Your task to perform on an android device: Show the shopping cart on newegg. Add "macbook pro 15 inch" to the cart on newegg, then select checkout. Image 0: 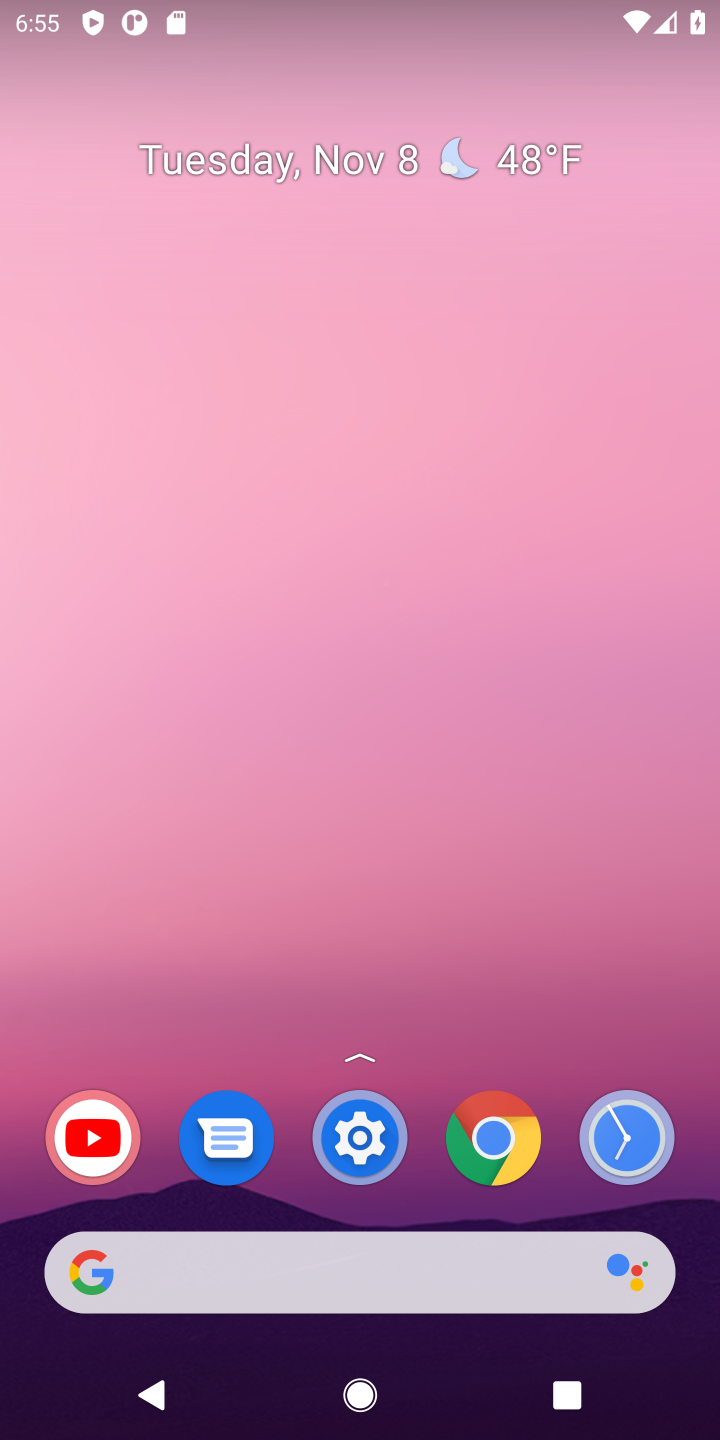
Step 0: click (491, 1135)
Your task to perform on an android device: Show the shopping cart on newegg. Add "macbook pro 15 inch" to the cart on newegg, then select checkout. Image 1: 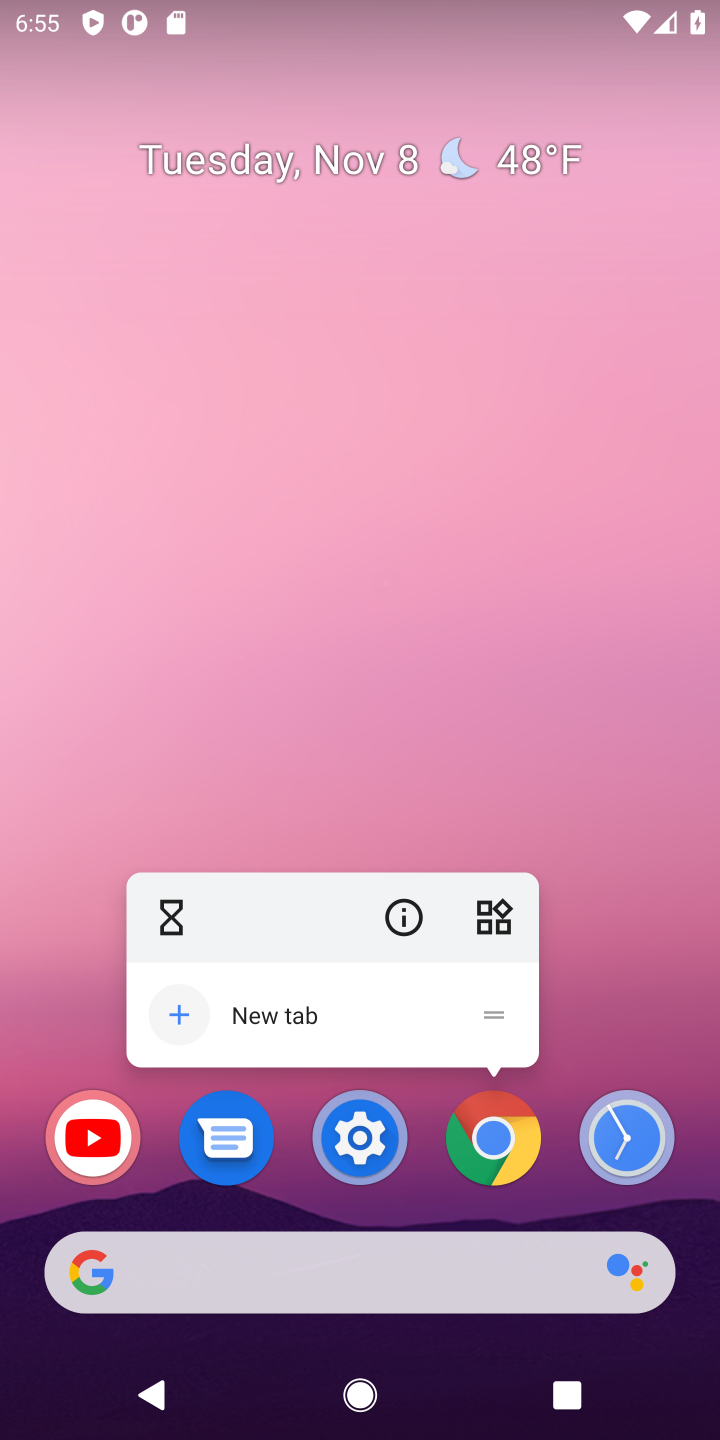
Step 1: click (489, 1135)
Your task to perform on an android device: Show the shopping cart on newegg. Add "macbook pro 15 inch" to the cart on newegg, then select checkout. Image 2: 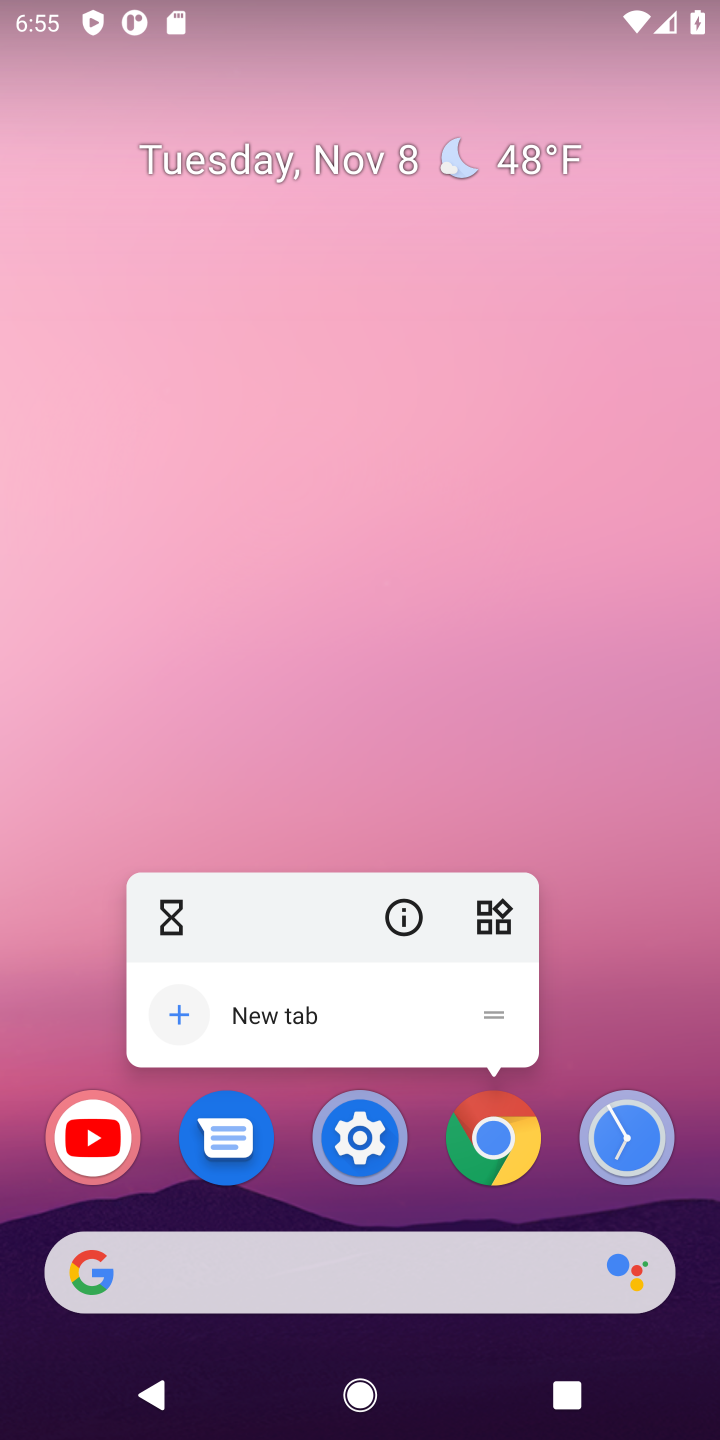
Step 2: click (489, 1142)
Your task to perform on an android device: Show the shopping cart on newegg. Add "macbook pro 15 inch" to the cart on newegg, then select checkout. Image 3: 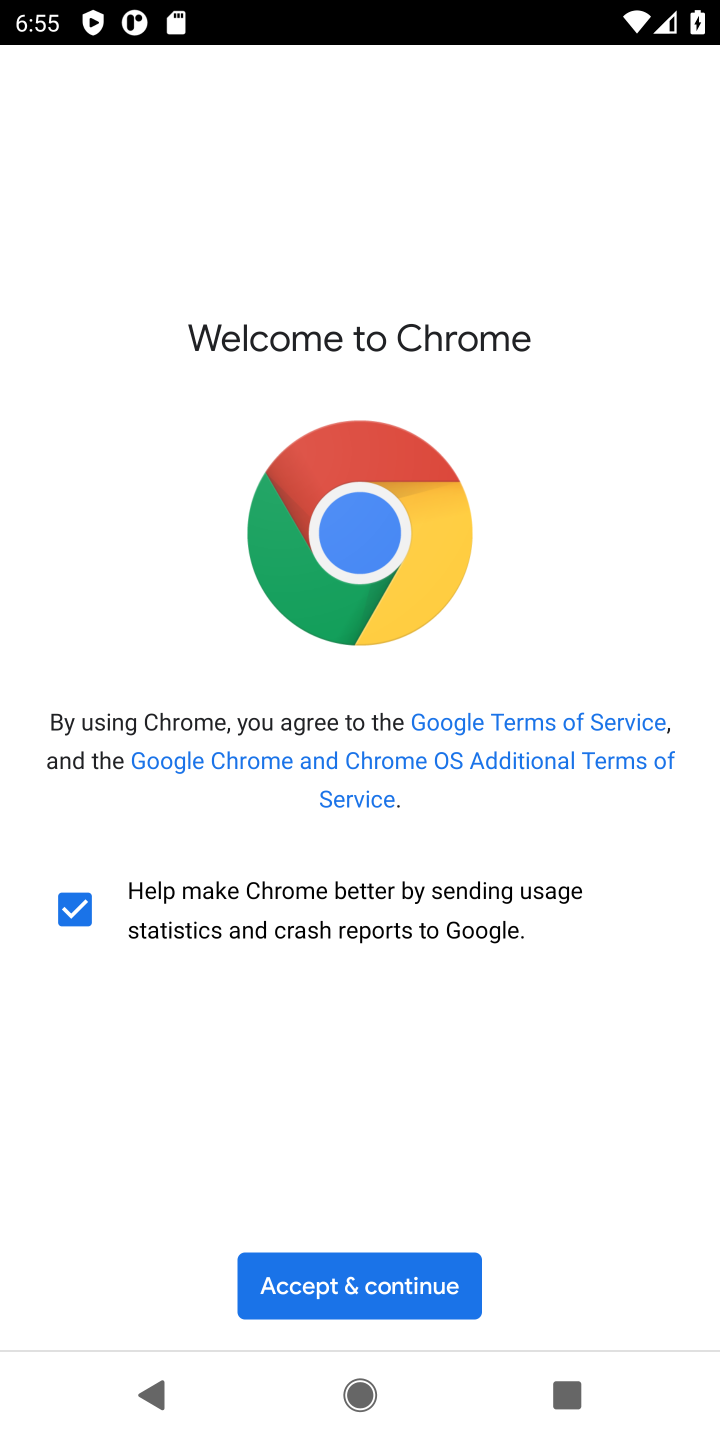
Step 3: click (360, 1299)
Your task to perform on an android device: Show the shopping cart on newegg. Add "macbook pro 15 inch" to the cart on newegg, then select checkout. Image 4: 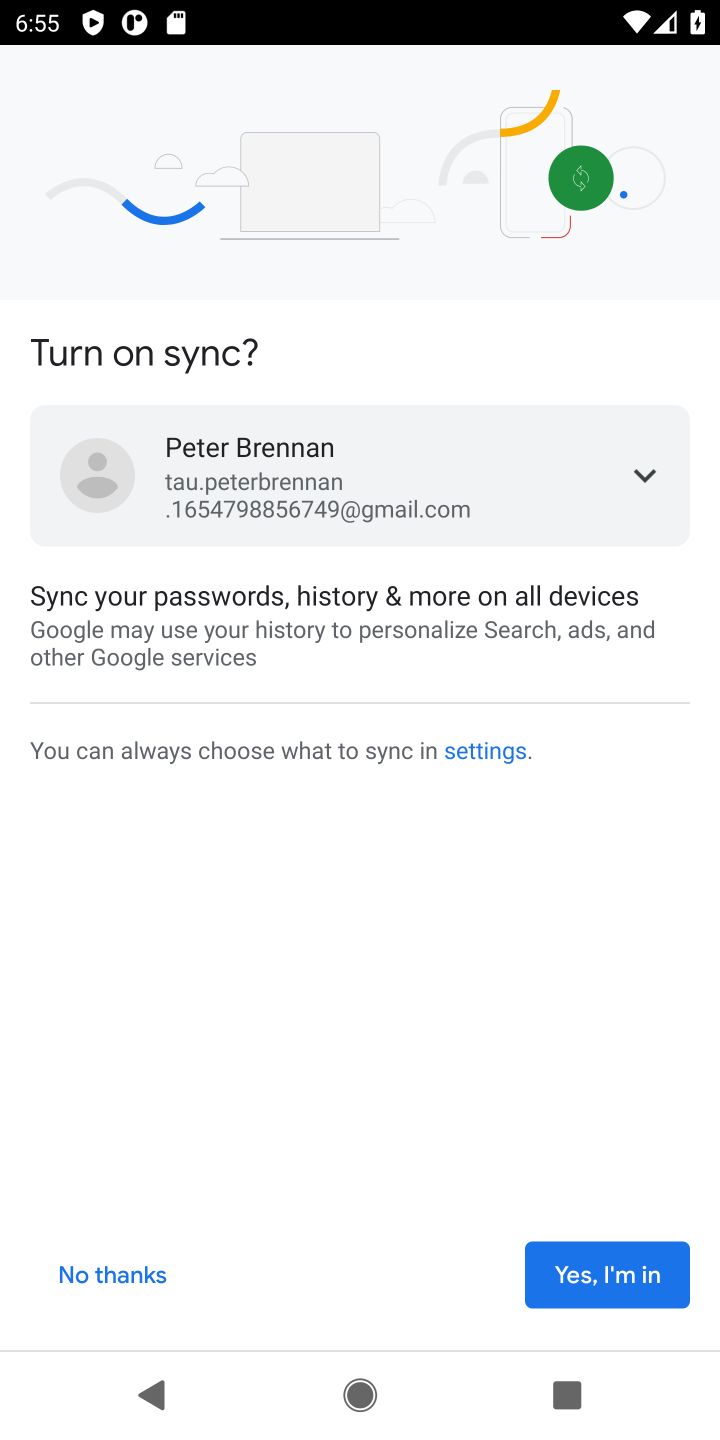
Step 4: click (626, 1279)
Your task to perform on an android device: Show the shopping cart on newegg. Add "macbook pro 15 inch" to the cart on newegg, then select checkout. Image 5: 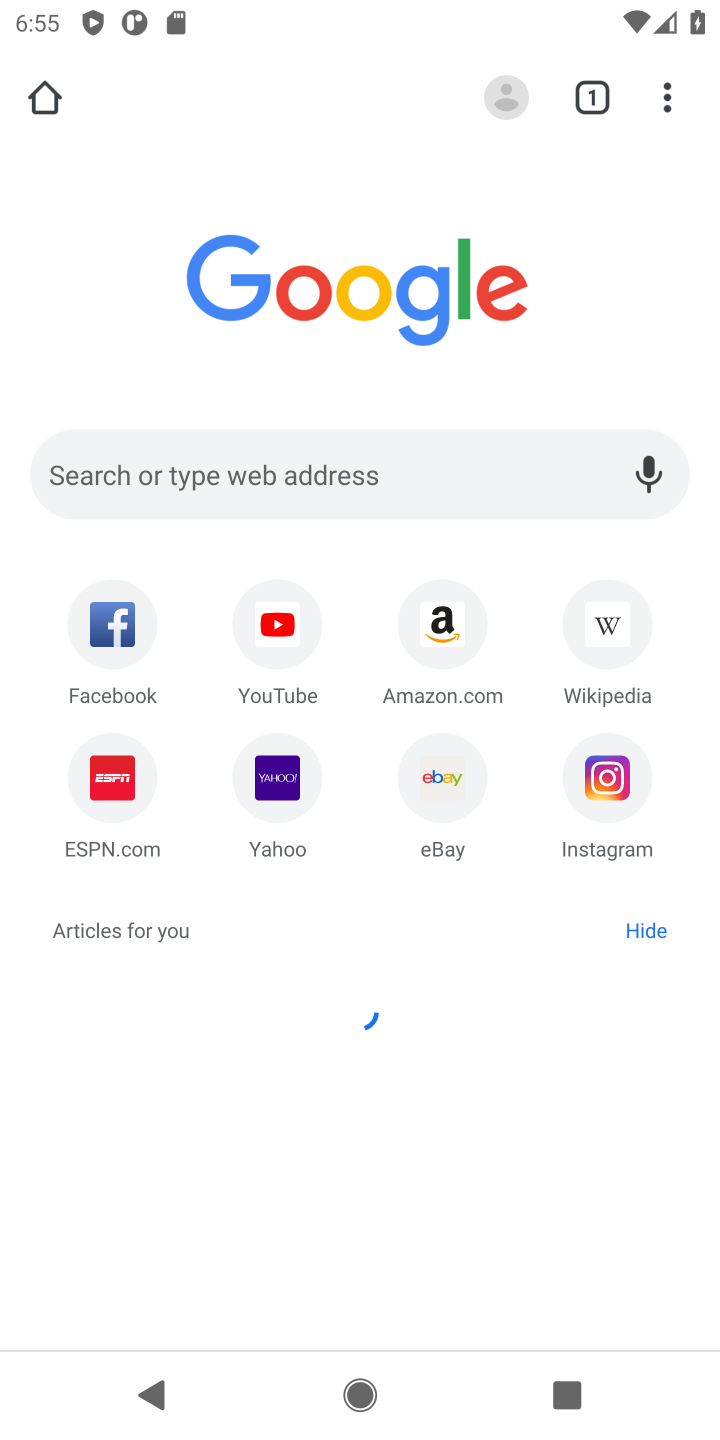
Step 5: click (283, 476)
Your task to perform on an android device: Show the shopping cart on newegg. Add "macbook pro 15 inch" to the cart on newegg, then select checkout. Image 6: 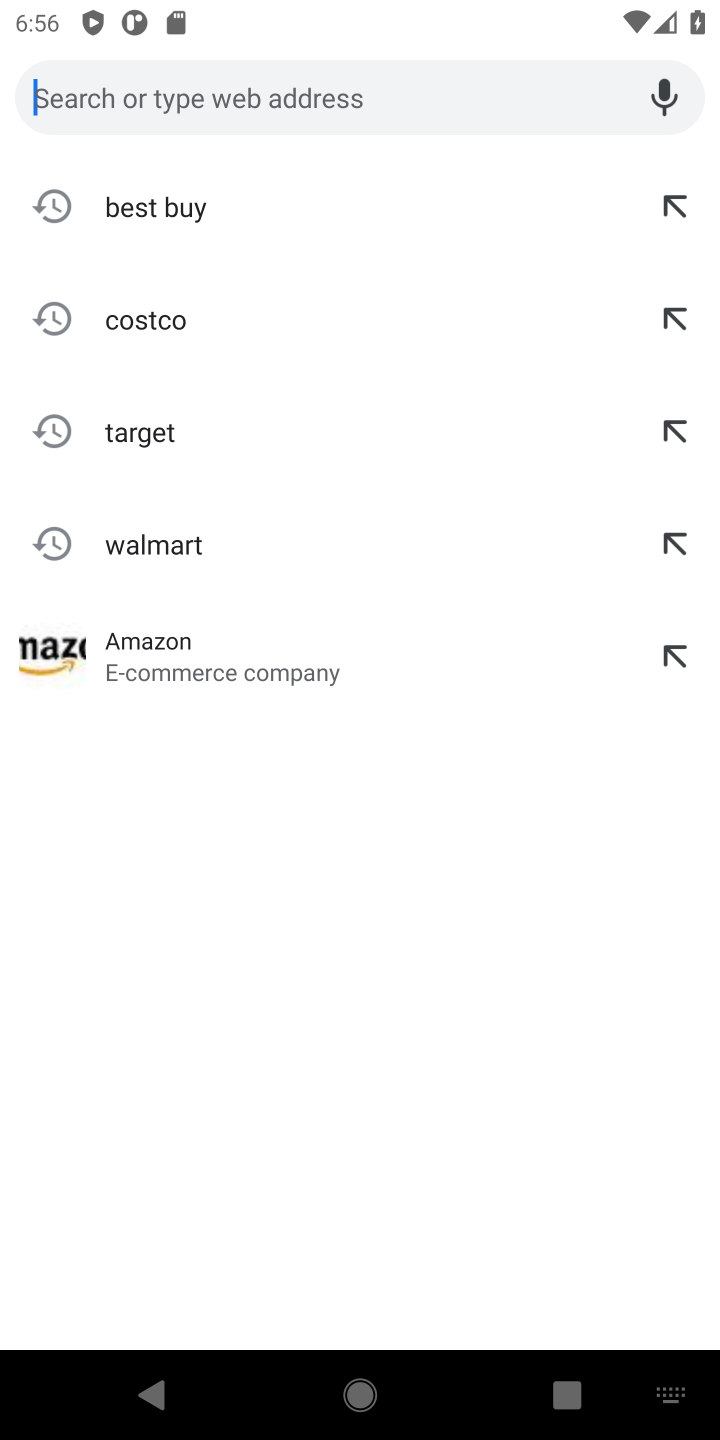
Step 6: type "newegg"
Your task to perform on an android device: Show the shopping cart on newegg. Add "macbook pro 15 inch" to the cart on newegg, then select checkout. Image 7: 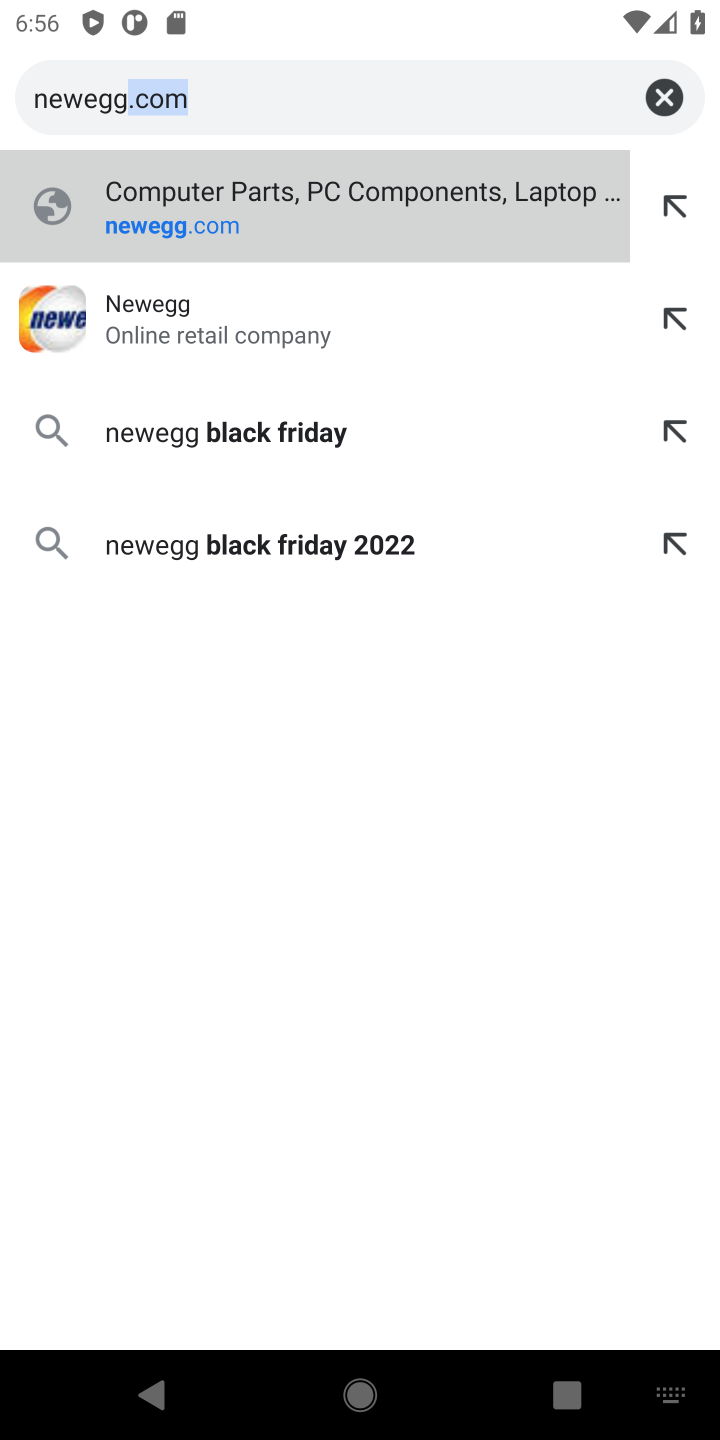
Step 7: press enter
Your task to perform on an android device: Show the shopping cart on newegg. Add "macbook pro 15 inch" to the cart on newegg, then select checkout. Image 8: 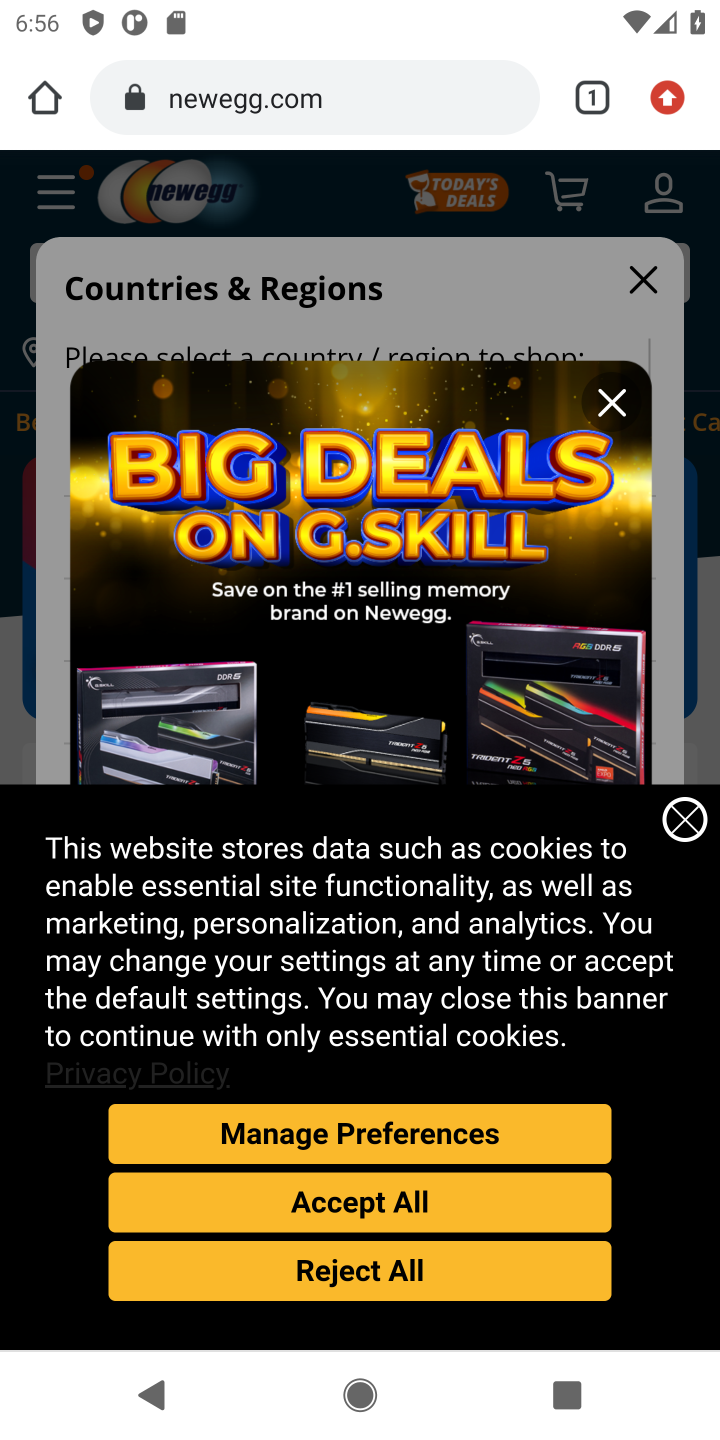
Step 8: click (674, 239)
Your task to perform on an android device: Show the shopping cart on newegg. Add "macbook pro 15 inch" to the cart on newegg, then select checkout. Image 9: 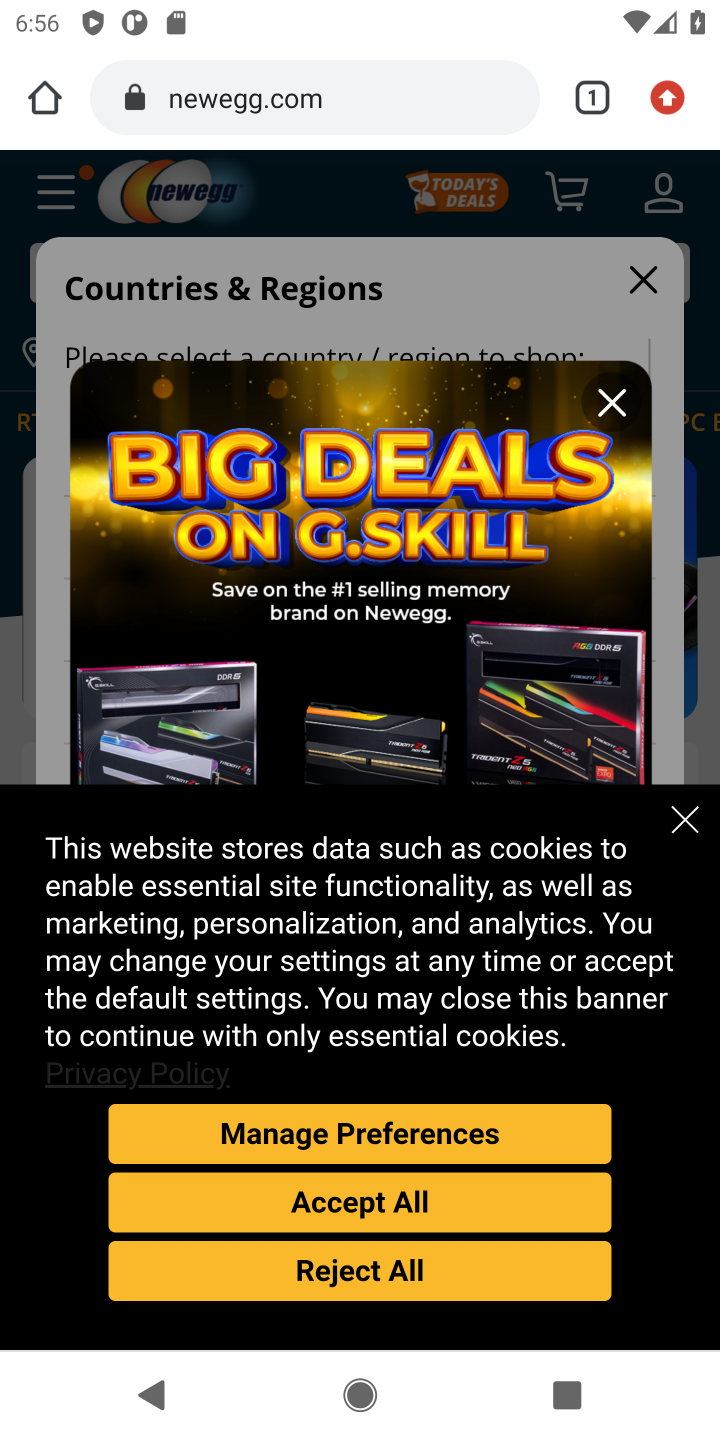
Step 9: click (642, 277)
Your task to perform on an android device: Show the shopping cart on newegg. Add "macbook pro 15 inch" to the cart on newegg, then select checkout. Image 10: 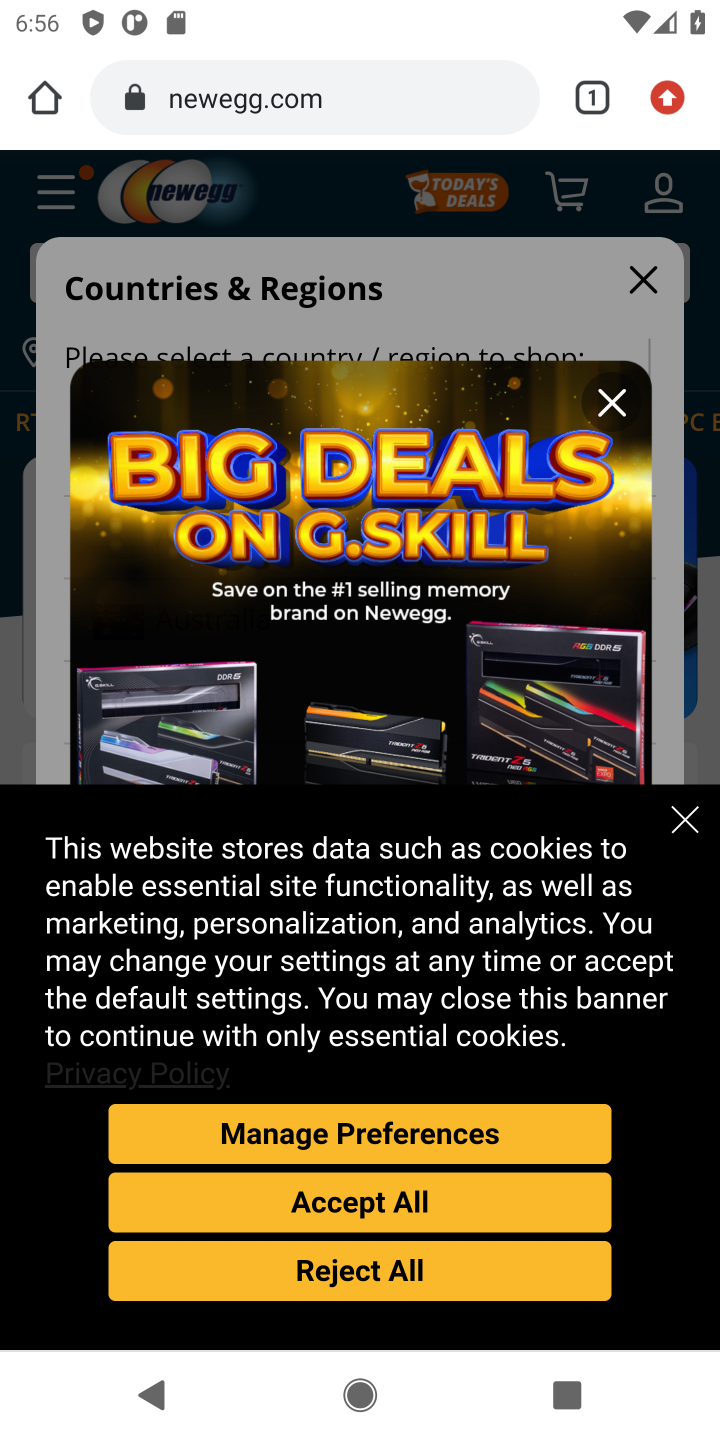
Step 10: click (687, 819)
Your task to perform on an android device: Show the shopping cart on newegg. Add "macbook pro 15 inch" to the cart on newegg, then select checkout. Image 11: 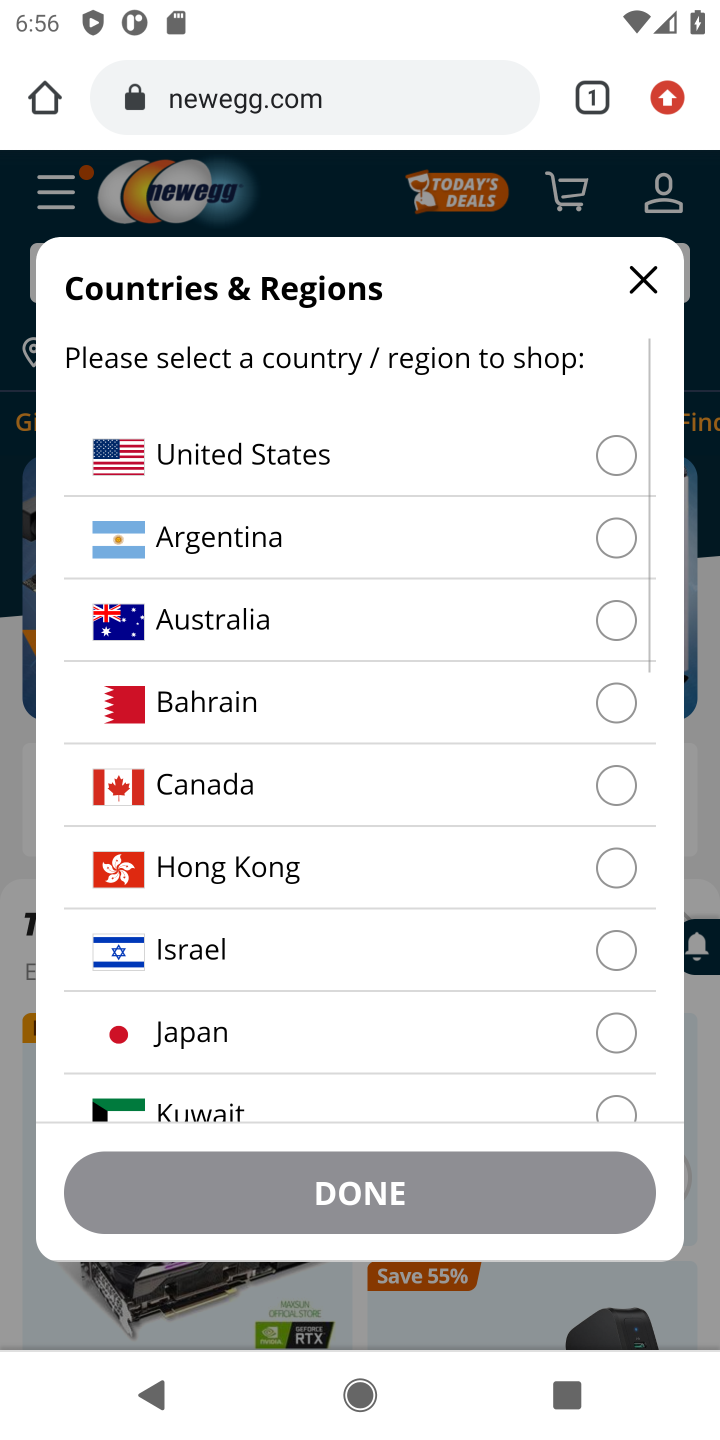
Step 11: click (640, 278)
Your task to perform on an android device: Show the shopping cart on newegg. Add "macbook pro 15 inch" to the cart on newegg, then select checkout. Image 12: 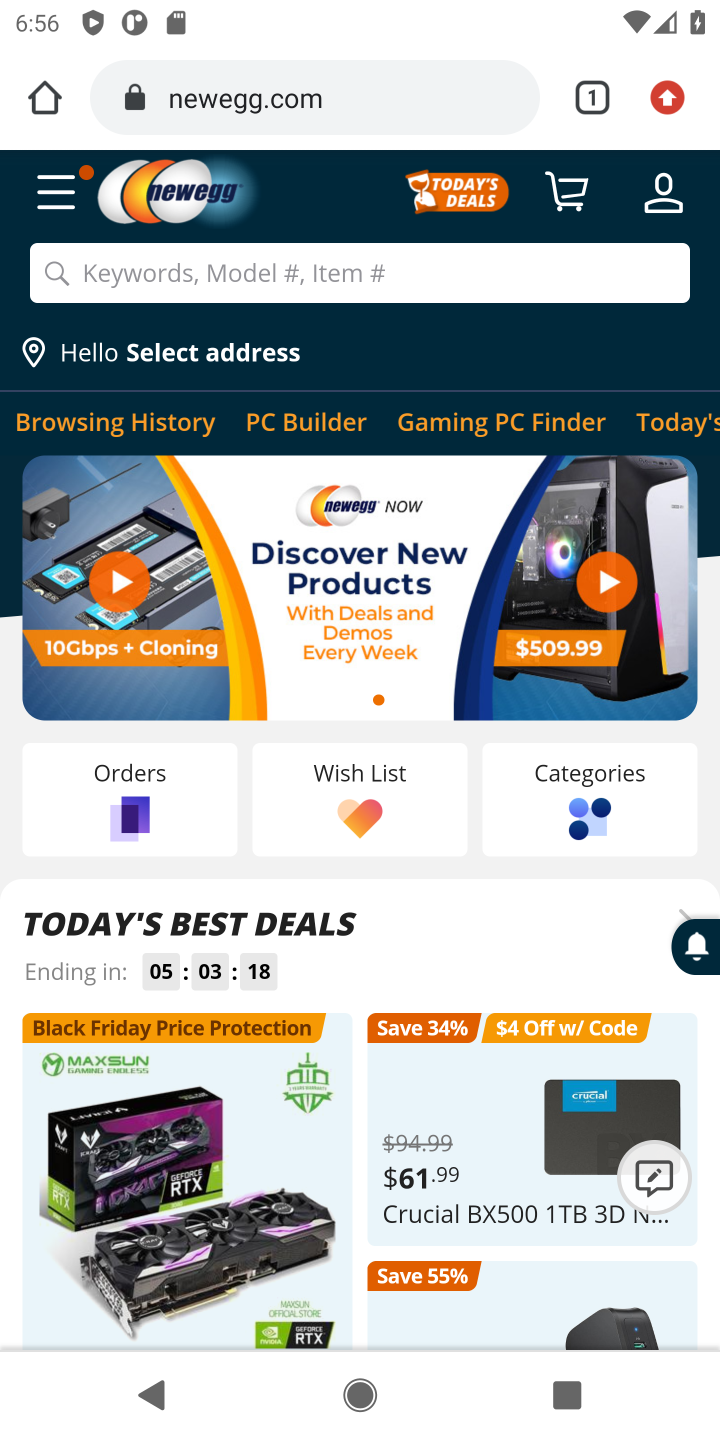
Step 12: click (383, 264)
Your task to perform on an android device: Show the shopping cart on newegg. Add "macbook pro 15 inch" to the cart on newegg, then select checkout. Image 13: 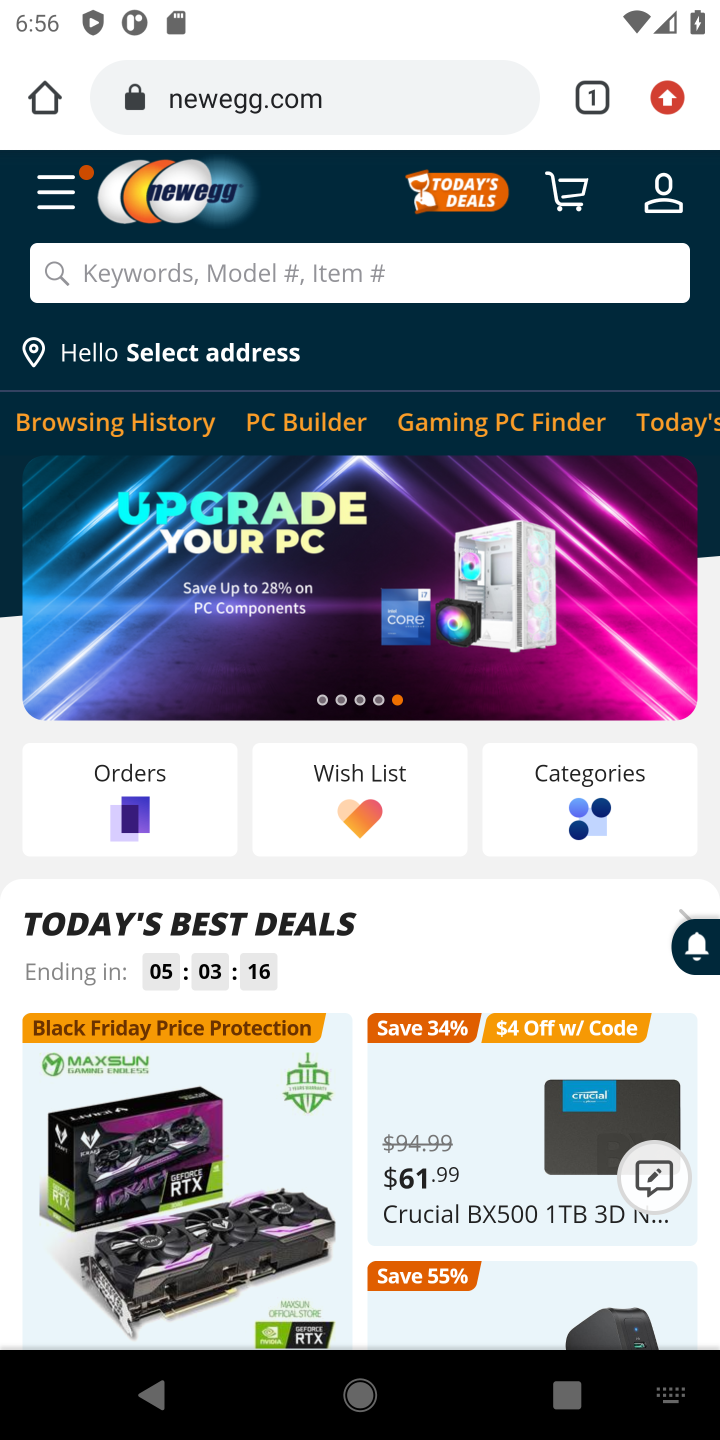
Step 13: click (253, 278)
Your task to perform on an android device: Show the shopping cart on newegg. Add "macbook pro 15 inch" to the cart on newegg, then select checkout. Image 14: 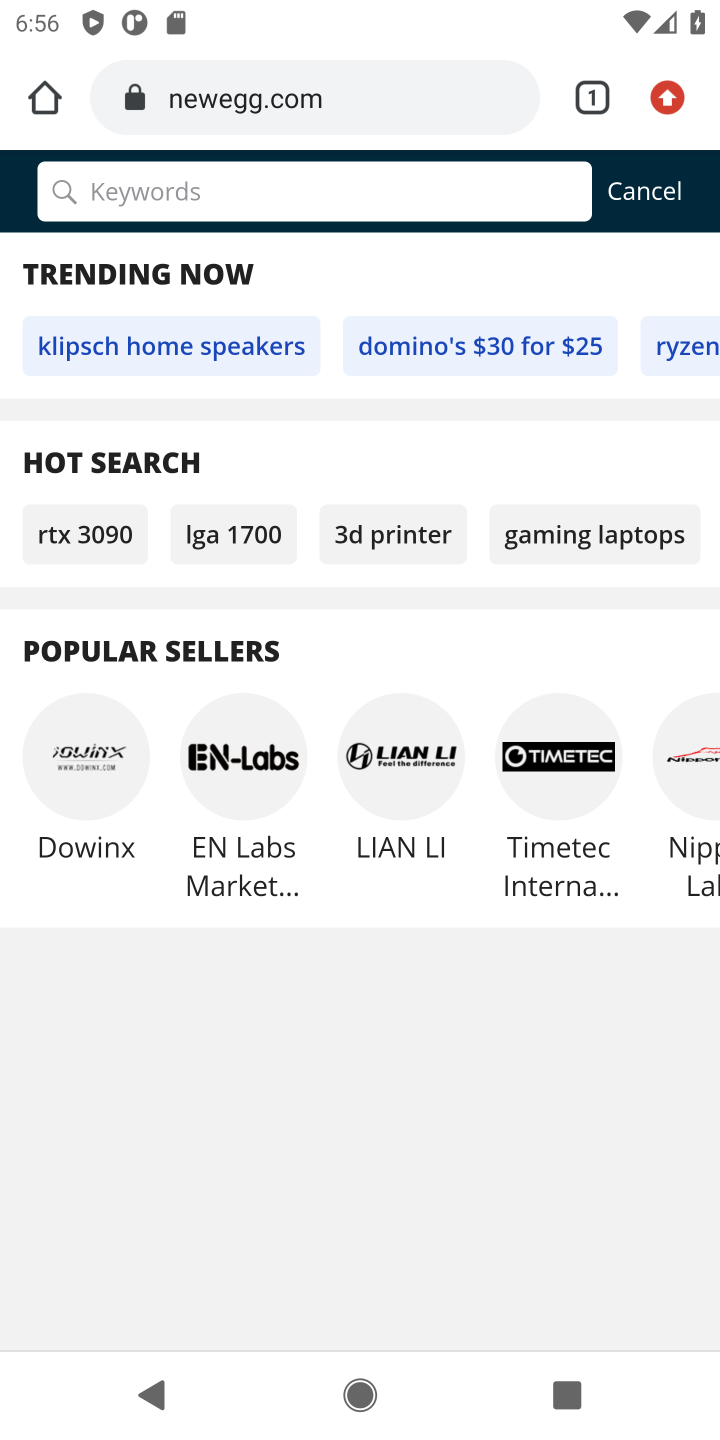
Step 14: click (145, 188)
Your task to perform on an android device: Show the shopping cart on newegg. Add "macbook pro 15 inch" to the cart on newegg, then select checkout. Image 15: 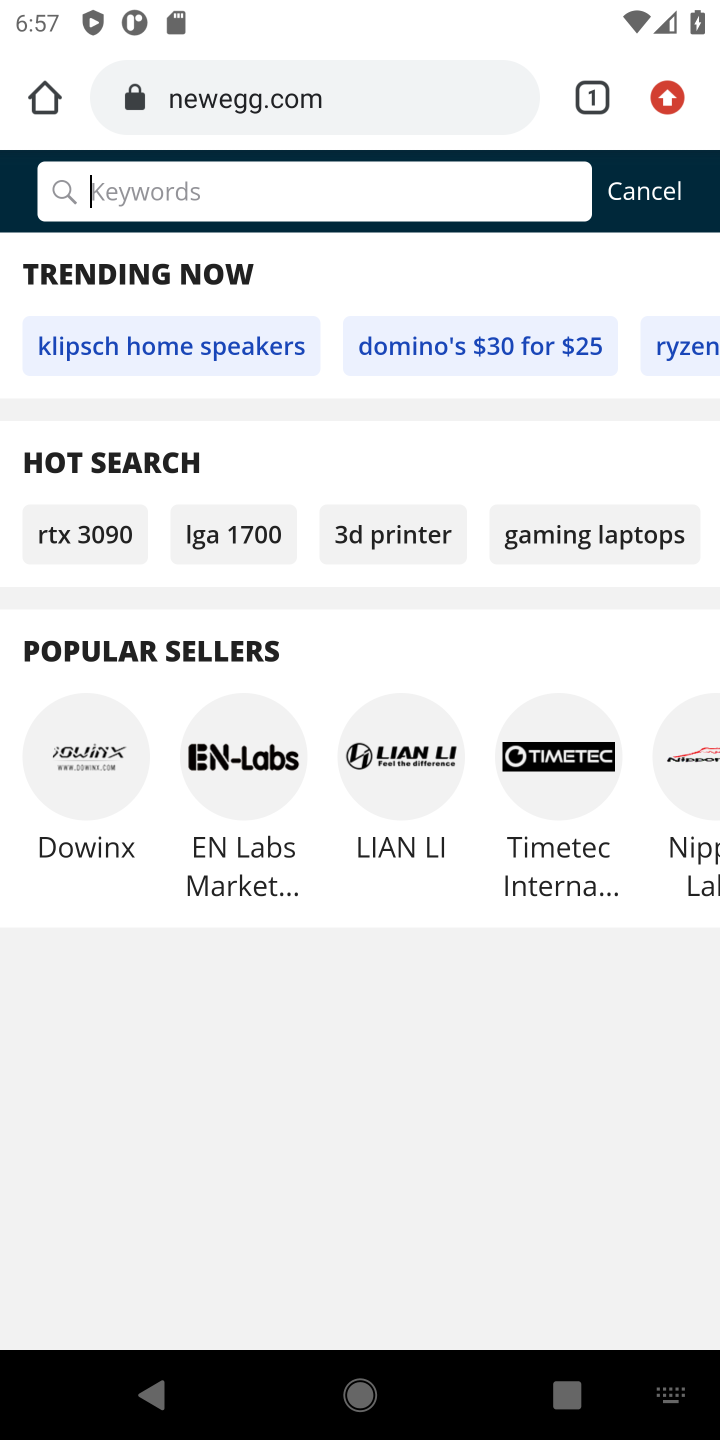
Step 15: type "macbook pro 15 inch"
Your task to perform on an android device: Show the shopping cart on newegg. Add "macbook pro 15 inch" to the cart on newegg, then select checkout. Image 16: 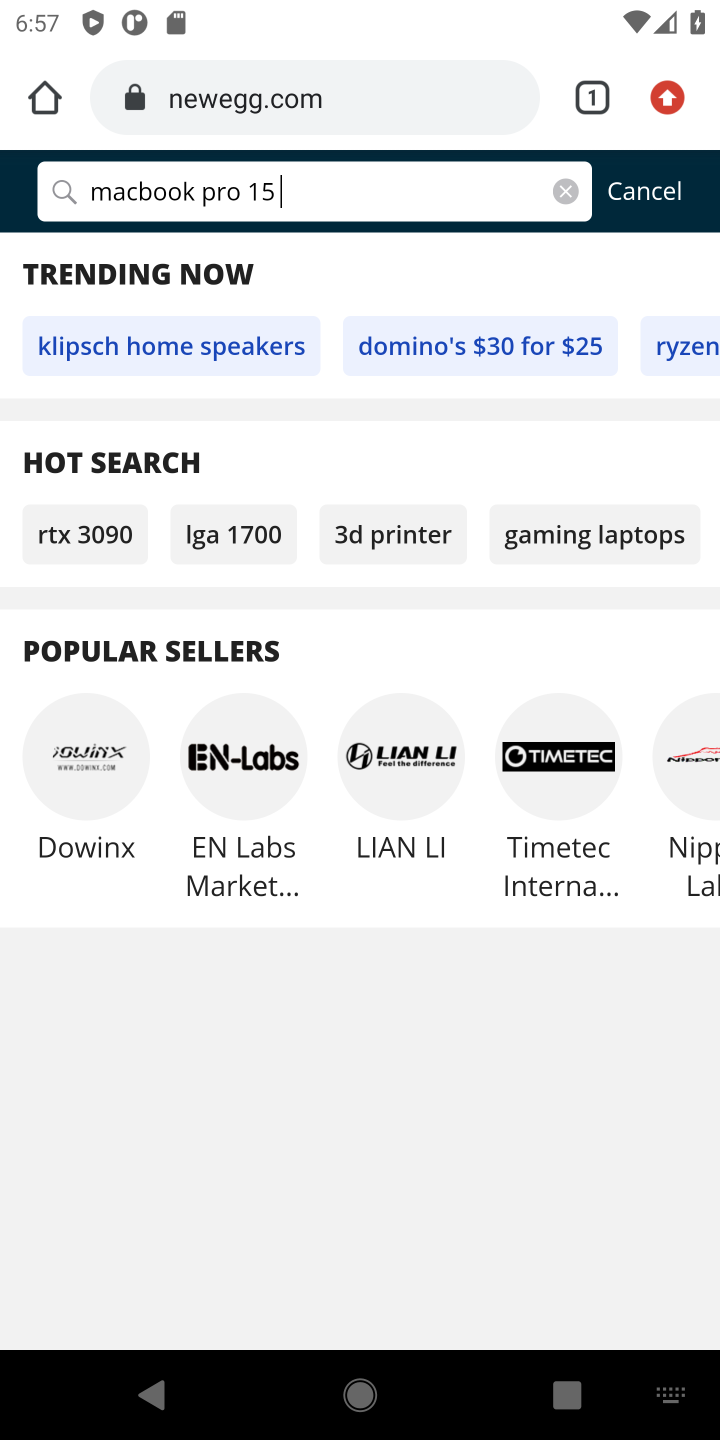
Step 16: press enter
Your task to perform on an android device: Show the shopping cart on newegg. Add "macbook pro 15 inch" to the cart on newegg, then select checkout. Image 17: 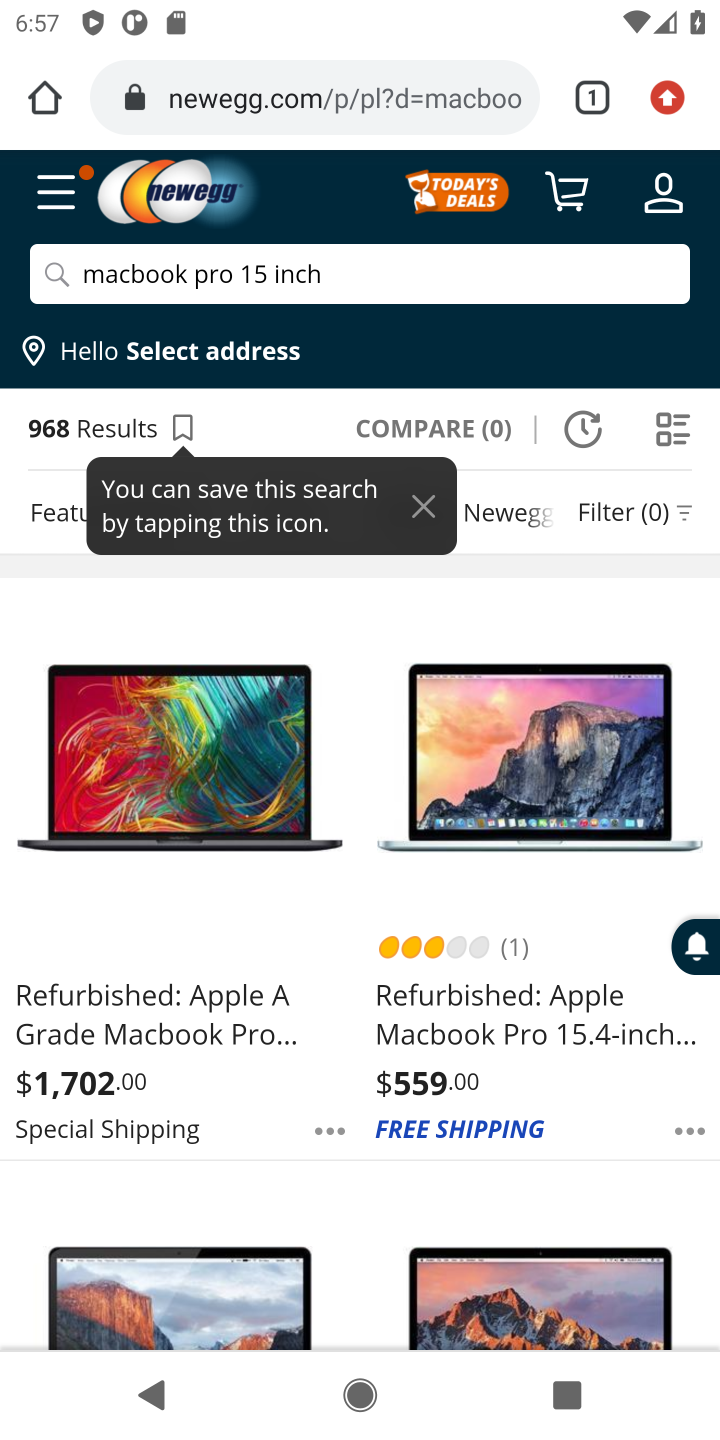
Step 17: drag from (299, 1185) to (435, 886)
Your task to perform on an android device: Show the shopping cart on newegg. Add "macbook pro 15 inch" to the cart on newegg, then select checkout. Image 18: 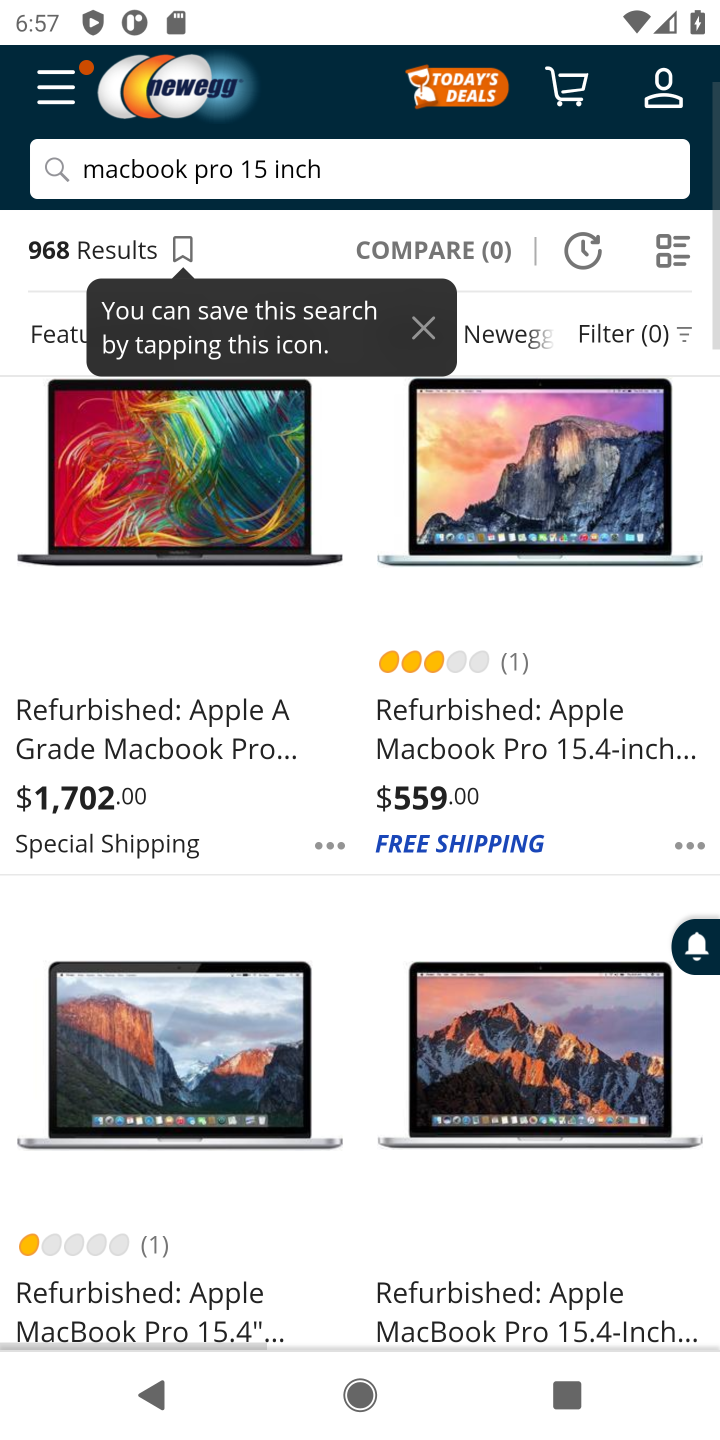
Step 18: click (182, 711)
Your task to perform on an android device: Show the shopping cart on newegg. Add "macbook pro 15 inch" to the cart on newegg, then select checkout. Image 19: 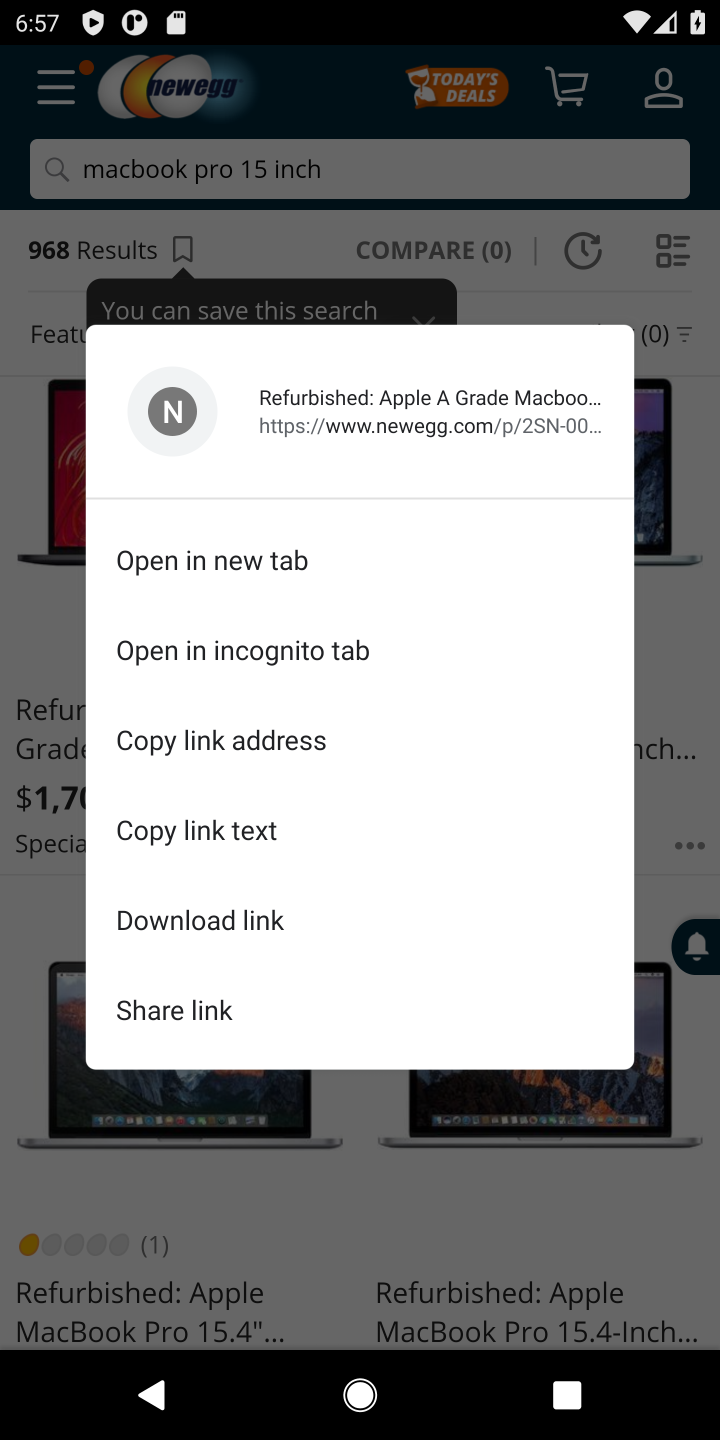
Step 19: click (20, 793)
Your task to perform on an android device: Show the shopping cart on newegg. Add "macbook pro 15 inch" to the cart on newegg, then select checkout. Image 20: 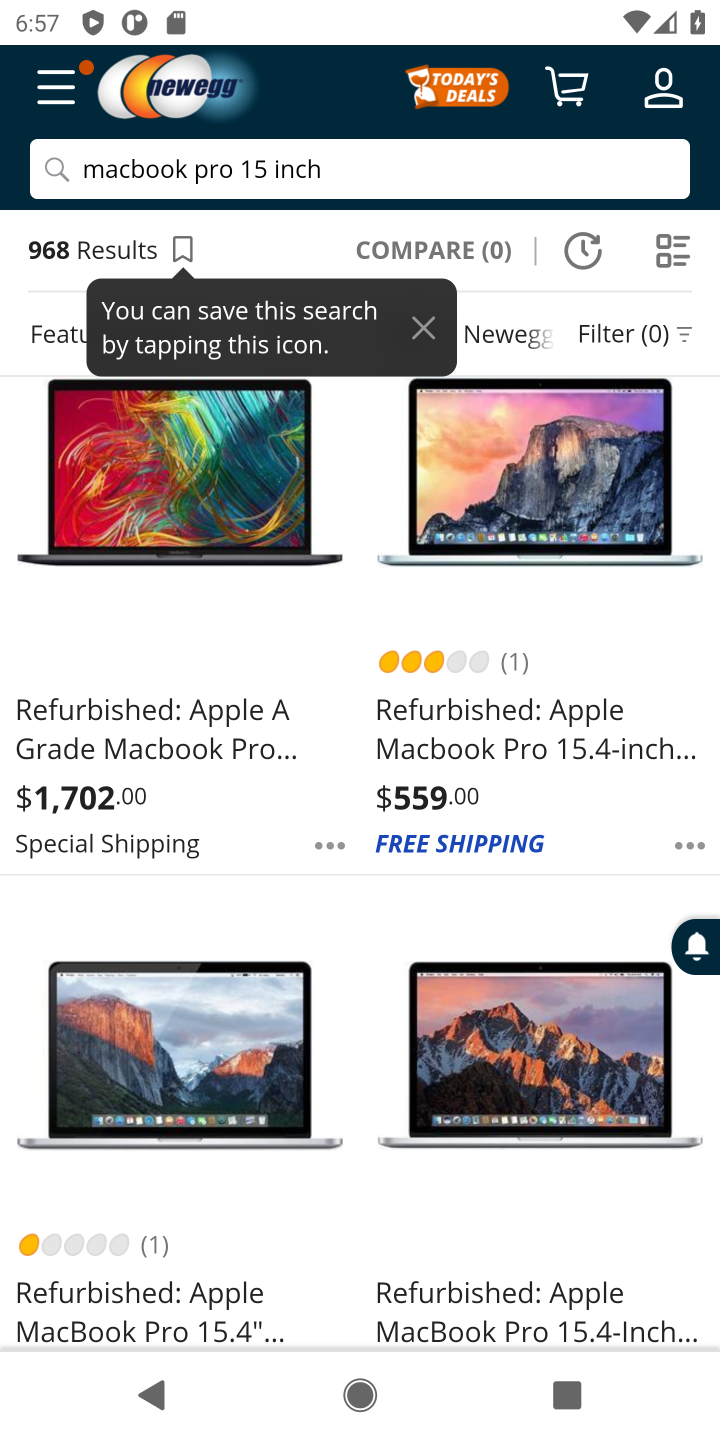
Step 20: click (137, 755)
Your task to perform on an android device: Show the shopping cart on newegg. Add "macbook pro 15 inch" to the cart on newegg, then select checkout. Image 21: 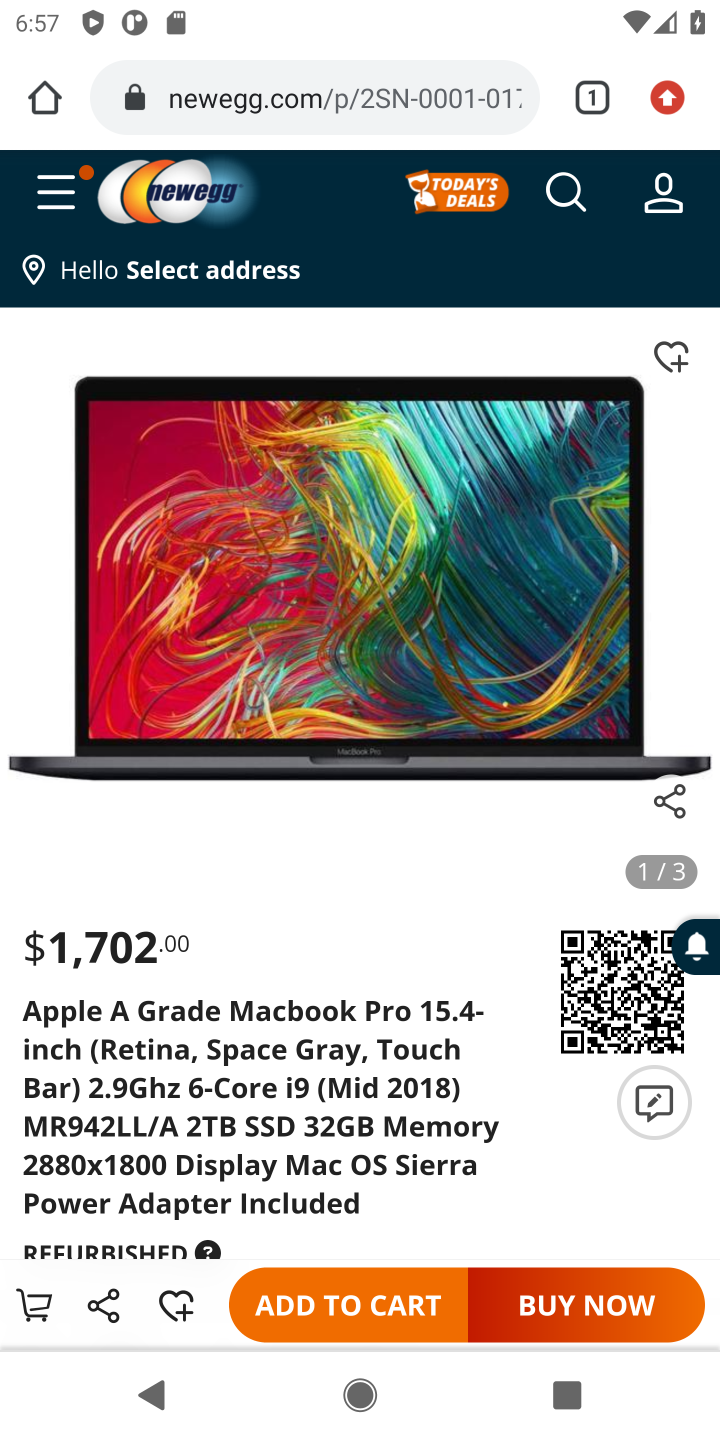
Step 21: task complete